Your task to perform on an android device: see sites visited before in the chrome app Image 0: 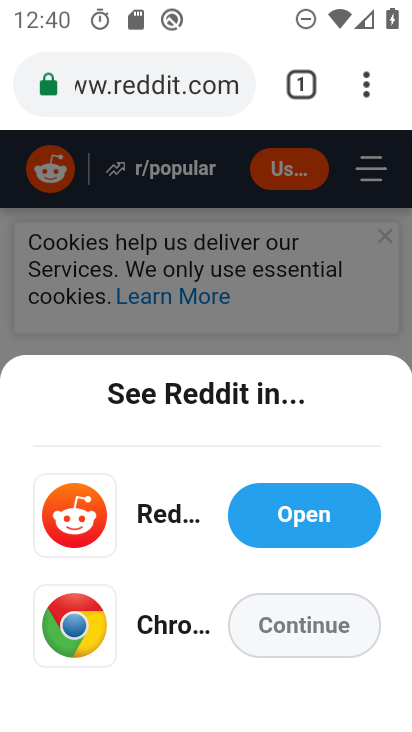
Step 0: click (304, 617)
Your task to perform on an android device: see sites visited before in the chrome app Image 1: 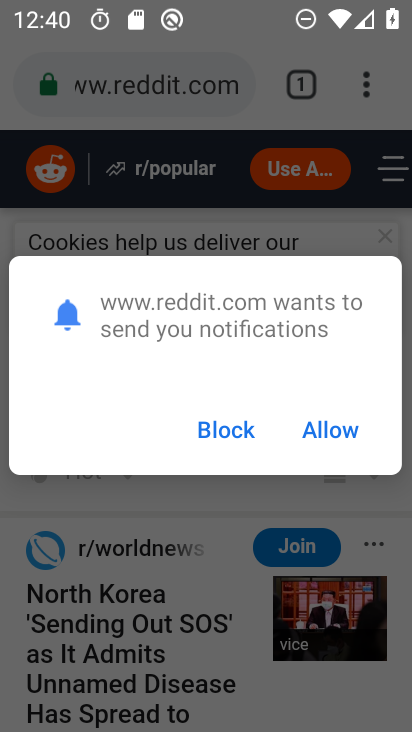
Step 1: click (223, 436)
Your task to perform on an android device: see sites visited before in the chrome app Image 2: 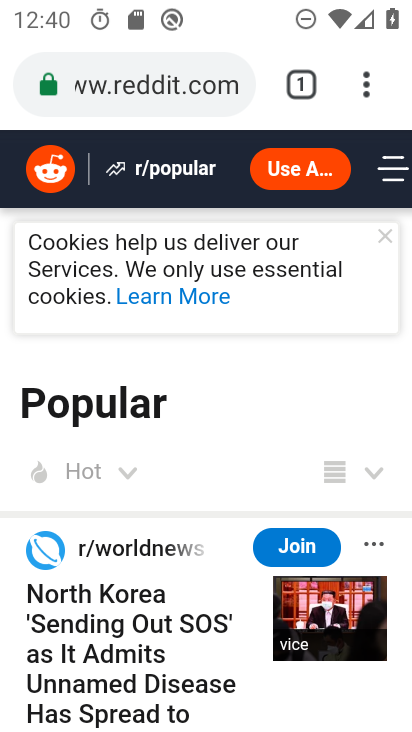
Step 2: click (365, 81)
Your task to perform on an android device: see sites visited before in the chrome app Image 3: 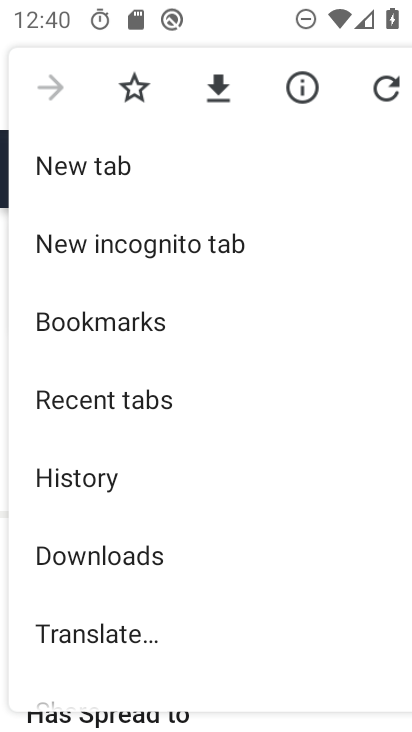
Step 3: click (124, 475)
Your task to perform on an android device: see sites visited before in the chrome app Image 4: 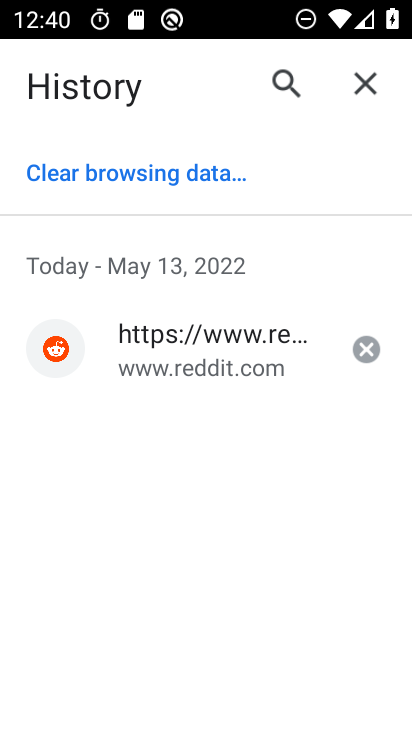
Step 4: task complete